Your task to perform on an android device: turn off location history Image 0: 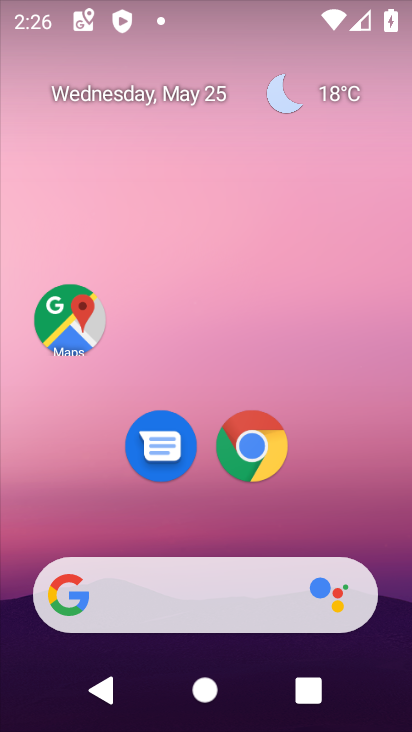
Step 0: drag from (234, 586) to (253, 42)
Your task to perform on an android device: turn off location history Image 1: 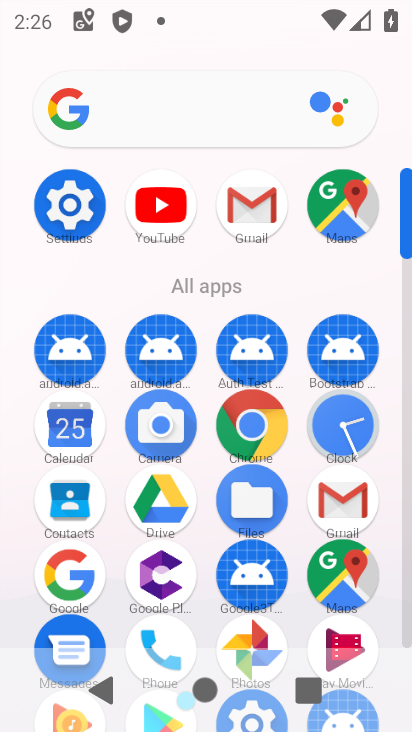
Step 1: click (81, 211)
Your task to perform on an android device: turn off location history Image 2: 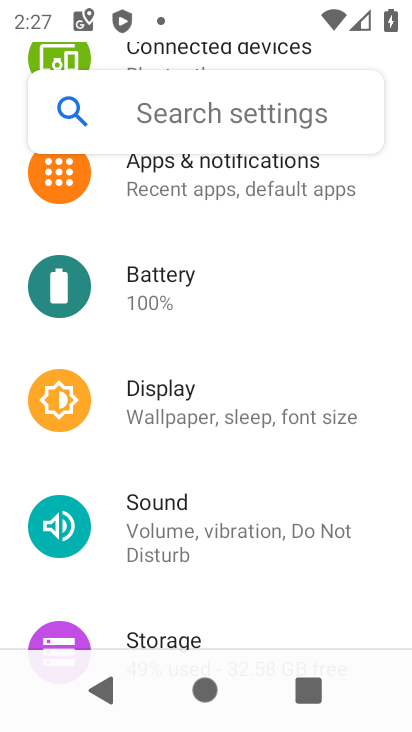
Step 2: drag from (129, 611) to (109, 87)
Your task to perform on an android device: turn off location history Image 3: 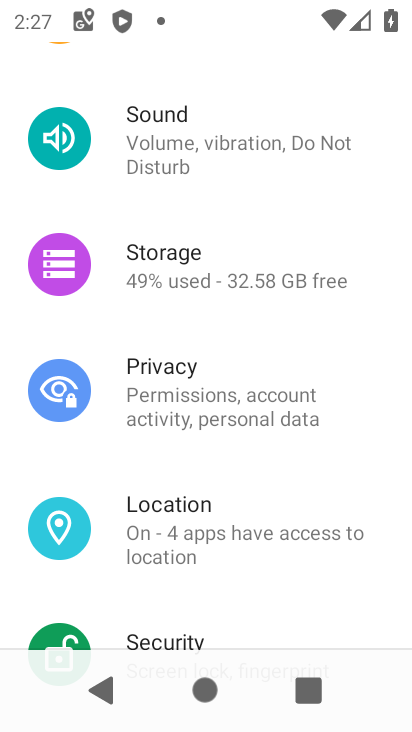
Step 3: click (124, 541)
Your task to perform on an android device: turn off location history Image 4: 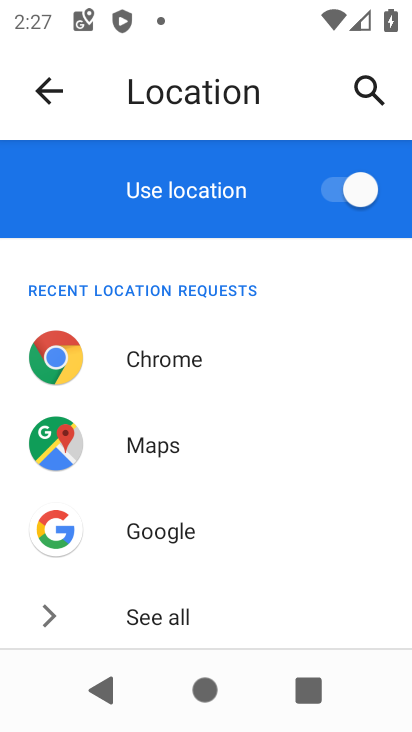
Step 4: drag from (223, 520) to (196, 93)
Your task to perform on an android device: turn off location history Image 5: 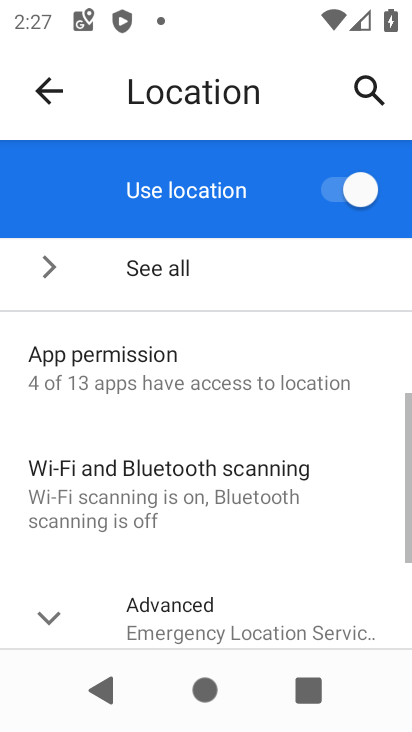
Step 5: click (184, 615)
Your task to perform on an android device: turn off location history Image 6: 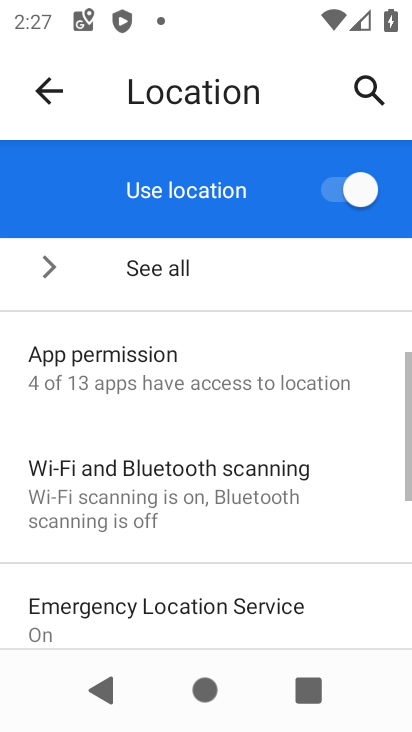
Step 6: drag from (238, 594) to (214, 244)
Your task to perform on an android device: turn off location history Image 7: 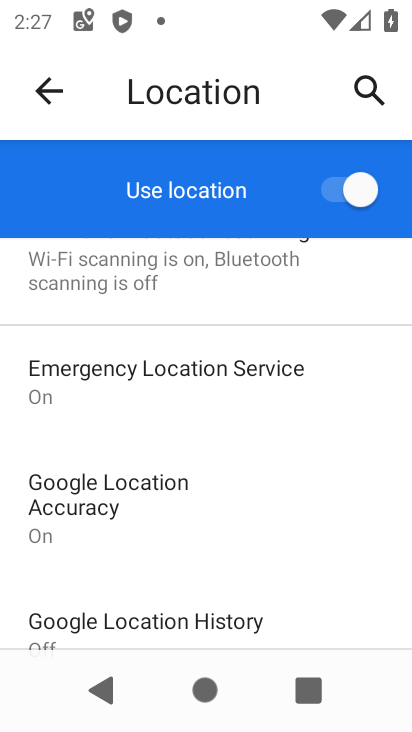
Step 7: click (161, 610)
Your task to perform on an android device: turn off location history Image 8: 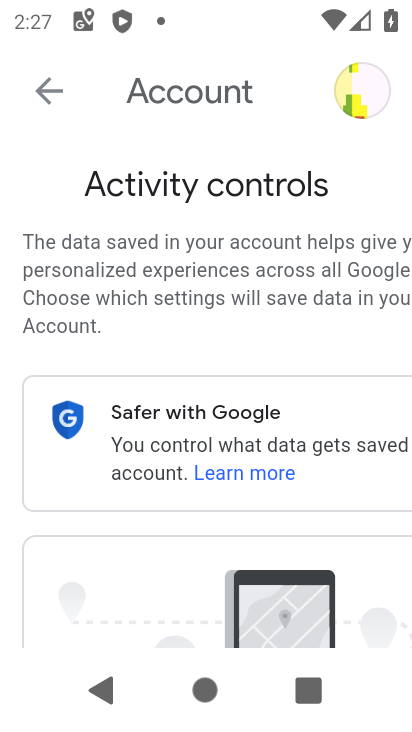
Step 8: task complete